Your task to perform on an android device: Turn on the flashlight Image 0: 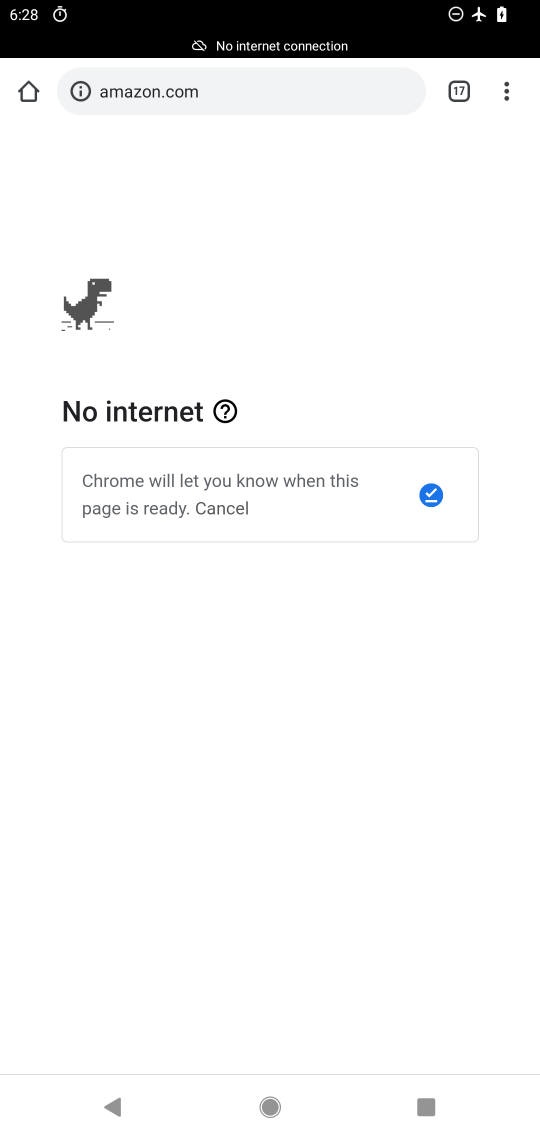
Step 0: press home button
Your task to perform on an android device: Turn on the flashlight Image 1: 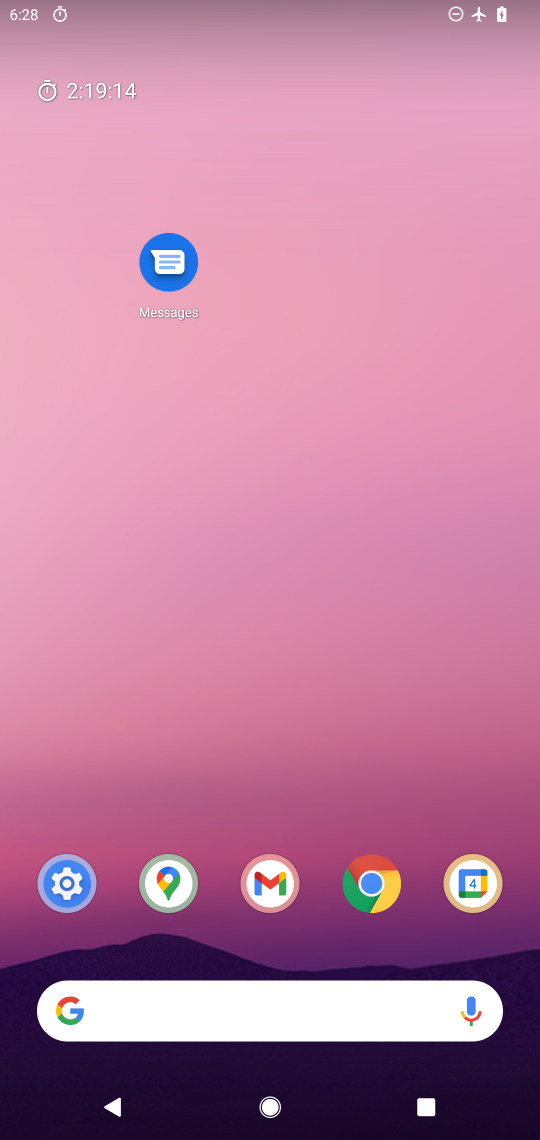
Step 1: drag from (302, 857) to (270, 112)
Your task to perform on an android device: Turn on the flashlight Image 2: 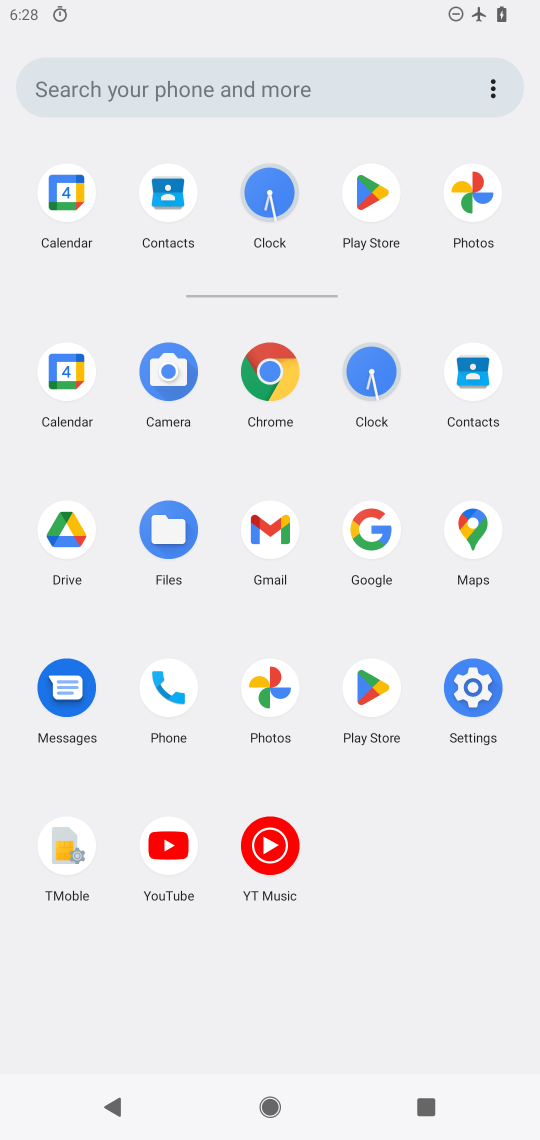
Step 2: click (466, 695)
Your task to perform on an android device: Turn on the flashlight Image 3: 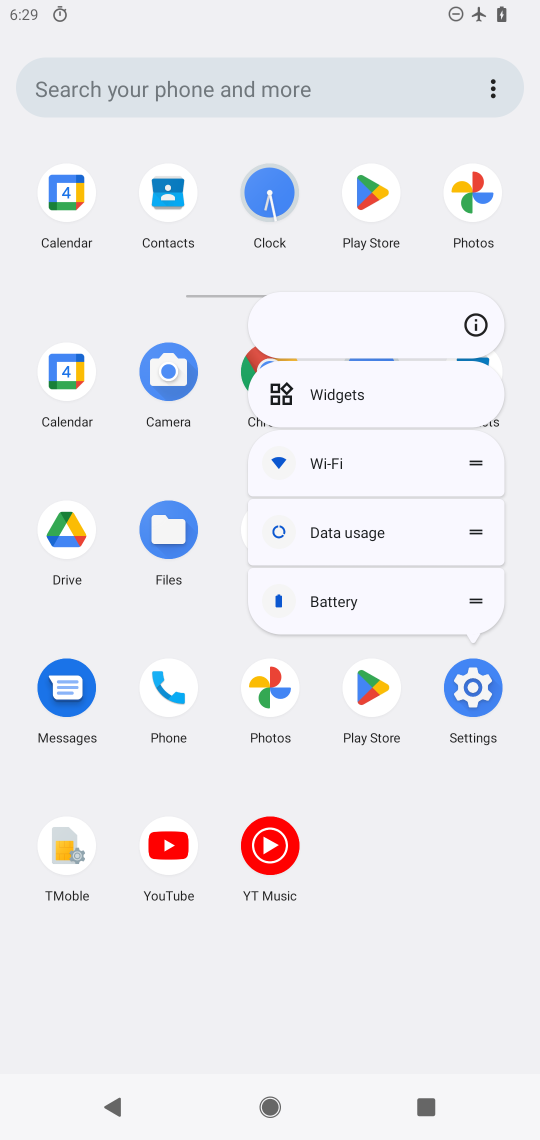
Step 3: click (472, 688)
Your task to perform on an android device: Turn on the flashlight Image 4: 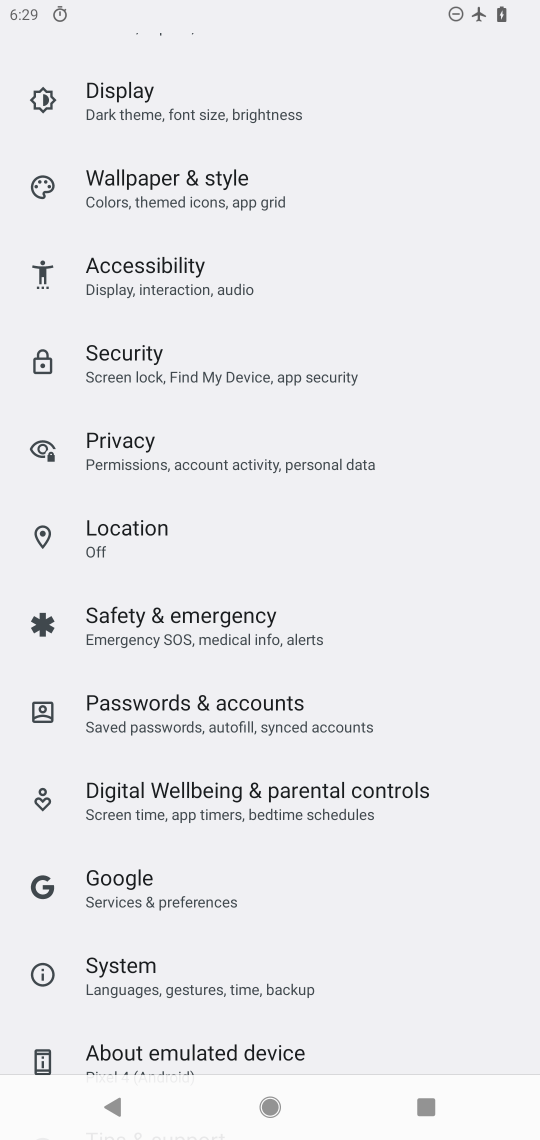
Step 4: task complete